Your task to perform on an android device: View the shopping cart on walmart.com. Add alienware area 51 to the cart on walmart.com, then select checkout. Image 0: 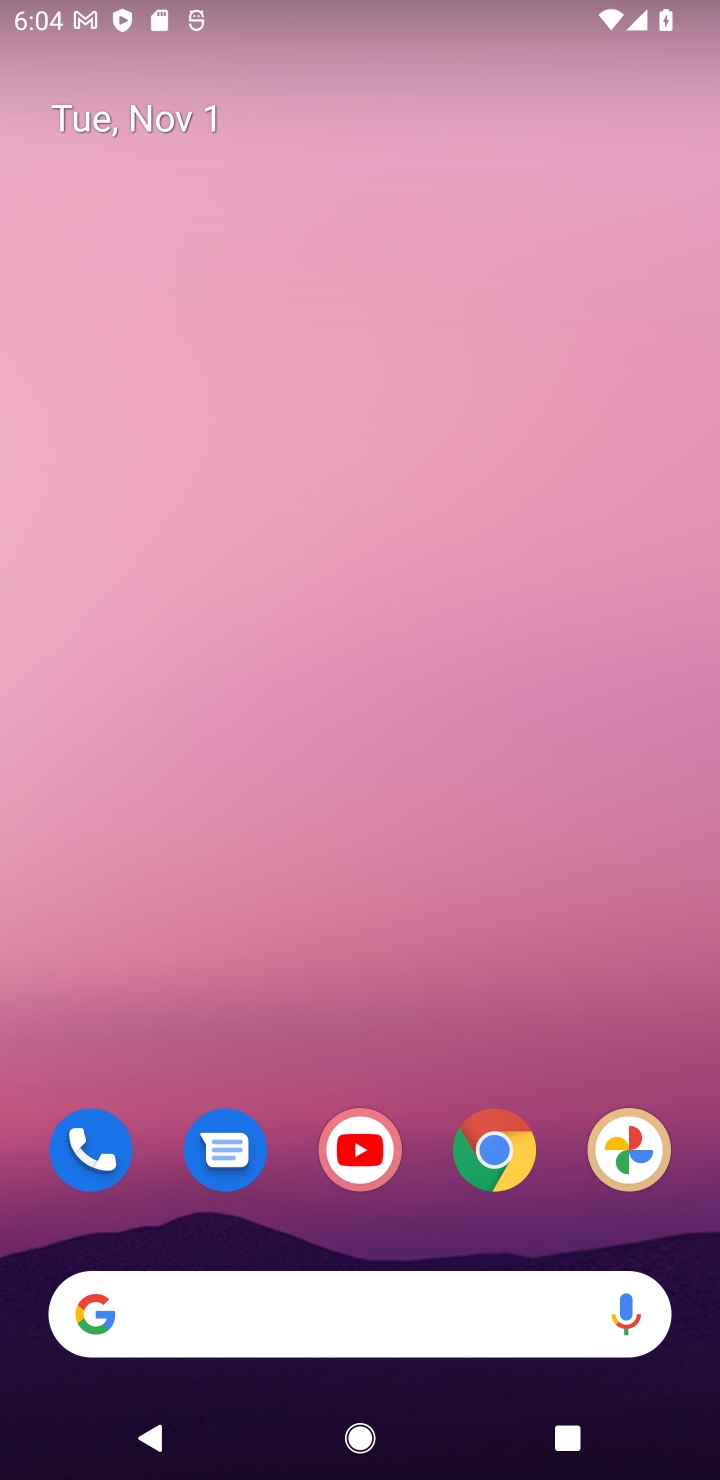
Step 0: click (493, 1176)
Your task to perform on an android device: View the shopping cart on walmart.com. Add alienware area 51 to the cart on walmart.com, then select checkout. Image 1: 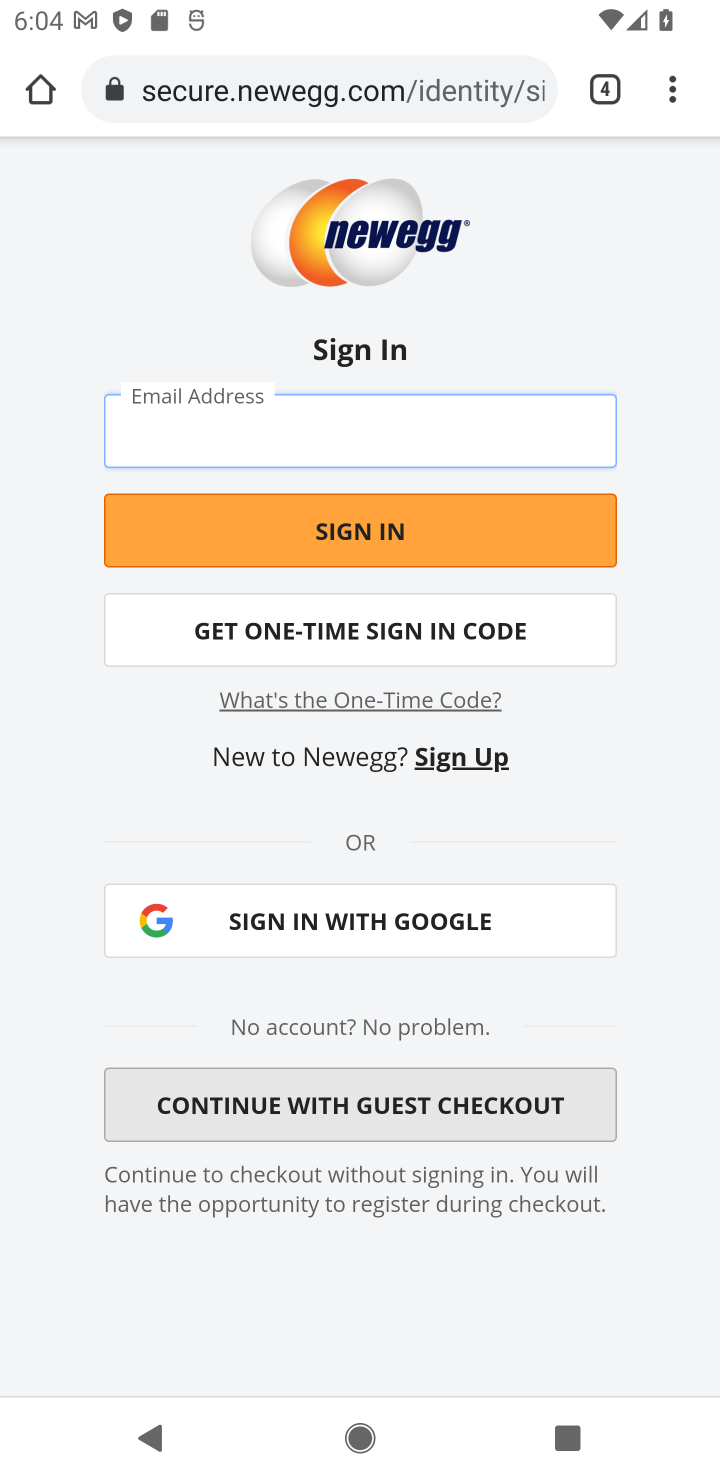
Step 1: click (609, 80)
Your task to perform on an android device: View the shopping cart on walmart.com. Add alienware area 51 to the cart on walmart.com, then select checkout. Image 2: 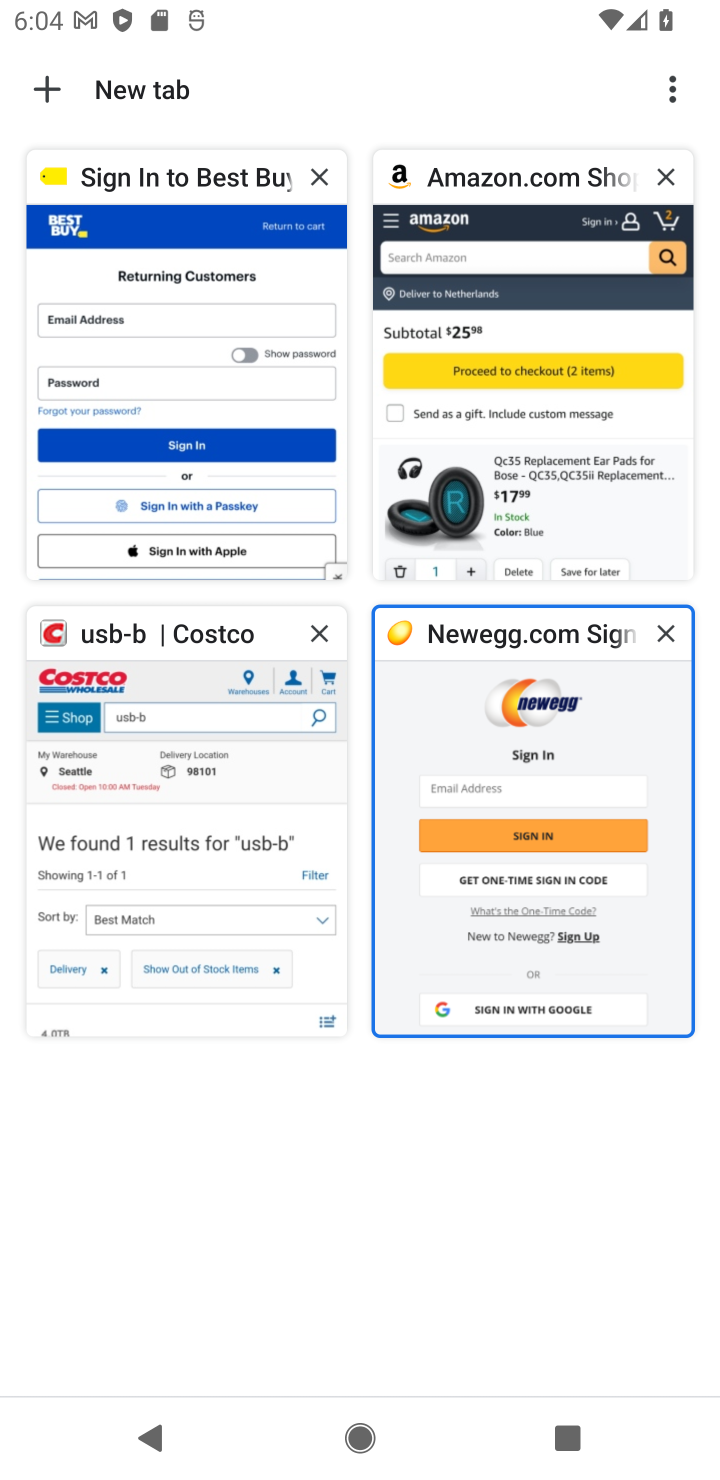
Step 2: click (48, 93)
Your task to perform on an android device: View the shopping cart on walmart.com. Add alienware area 51 to the cart on walmart.com, then select checkout. Image 3: 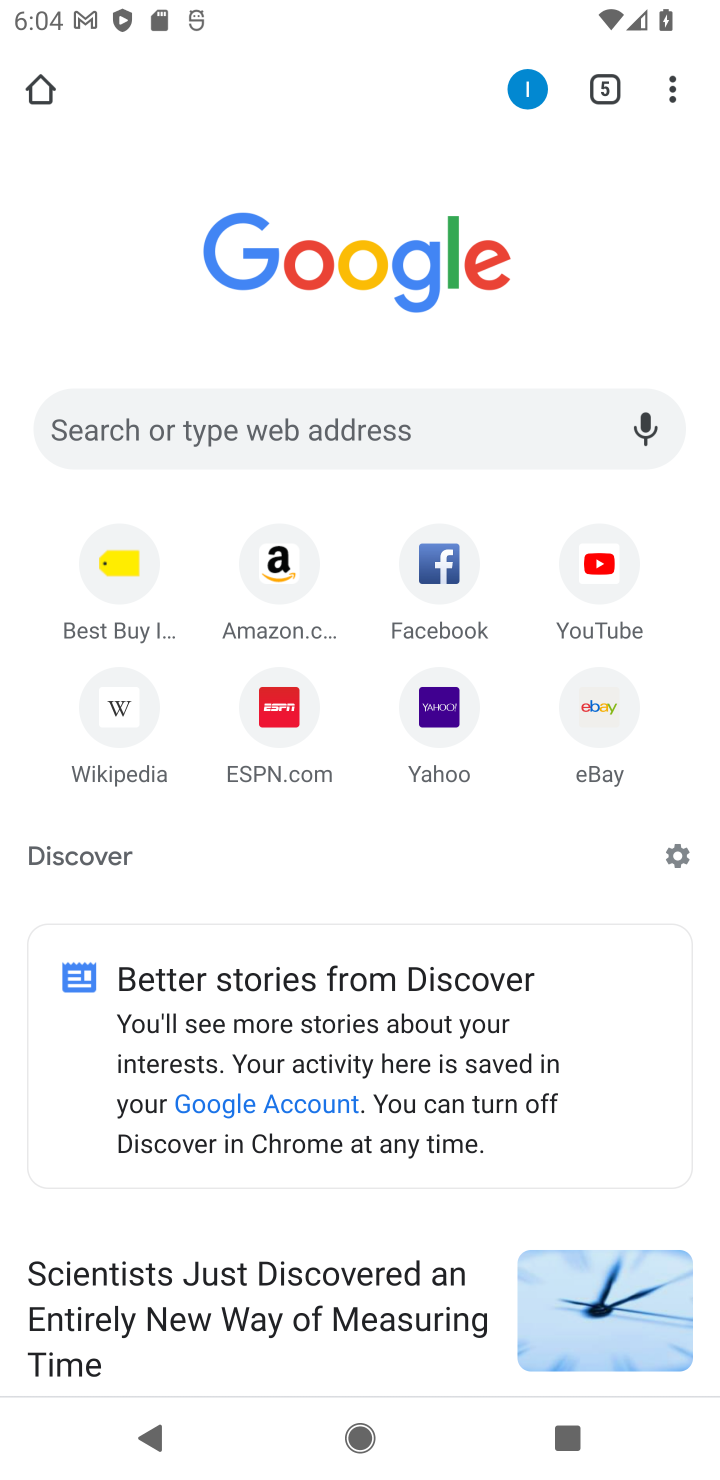
Step 3: click (368, 443)
Your task to perform on an android device: View the shopping cart on walmart.com. Add alienware area 51 to the cart on walmart.com, then select checkout. Image 4: 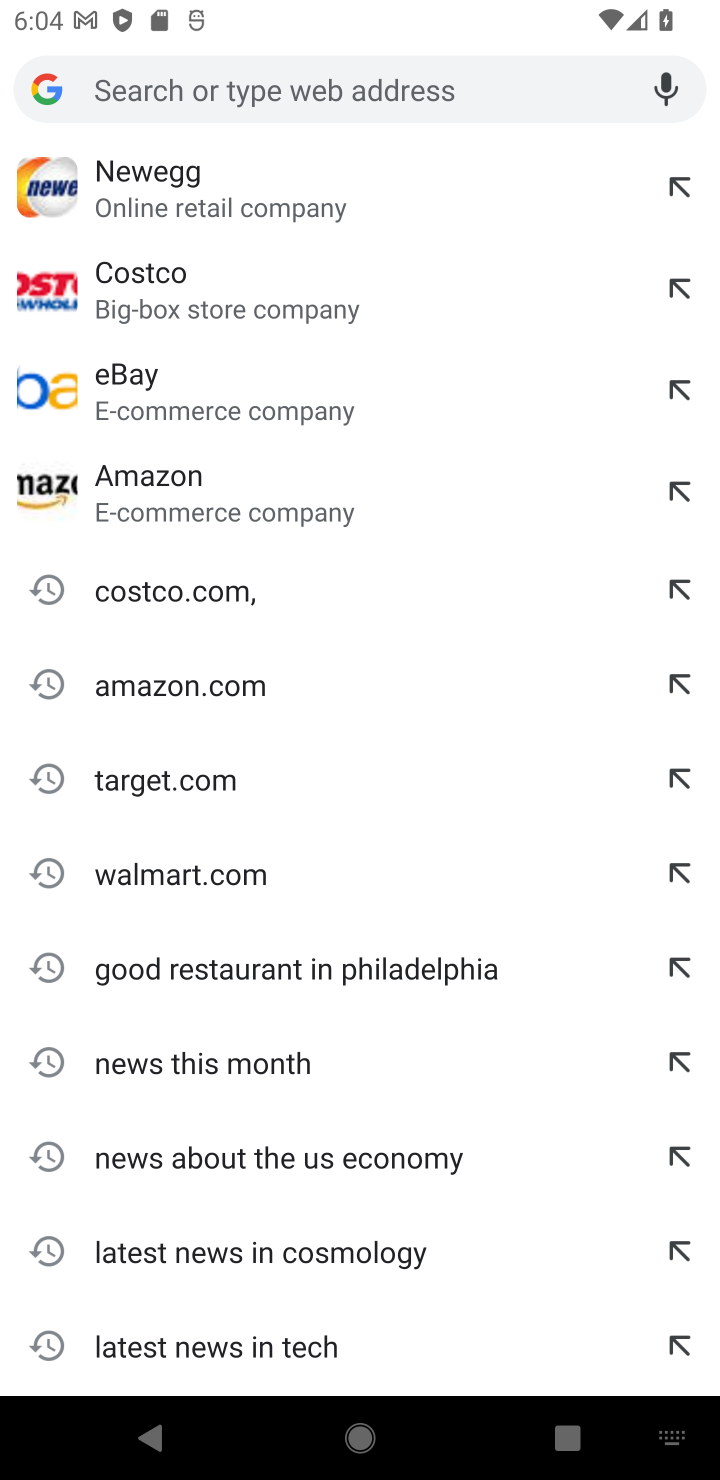
Step 4: type "walmart"
Your task to perform on an android device: View the shopping cart on walmart.com. Add alienware area 51 to the cart on walmart.com, then select checkout. Image 5: 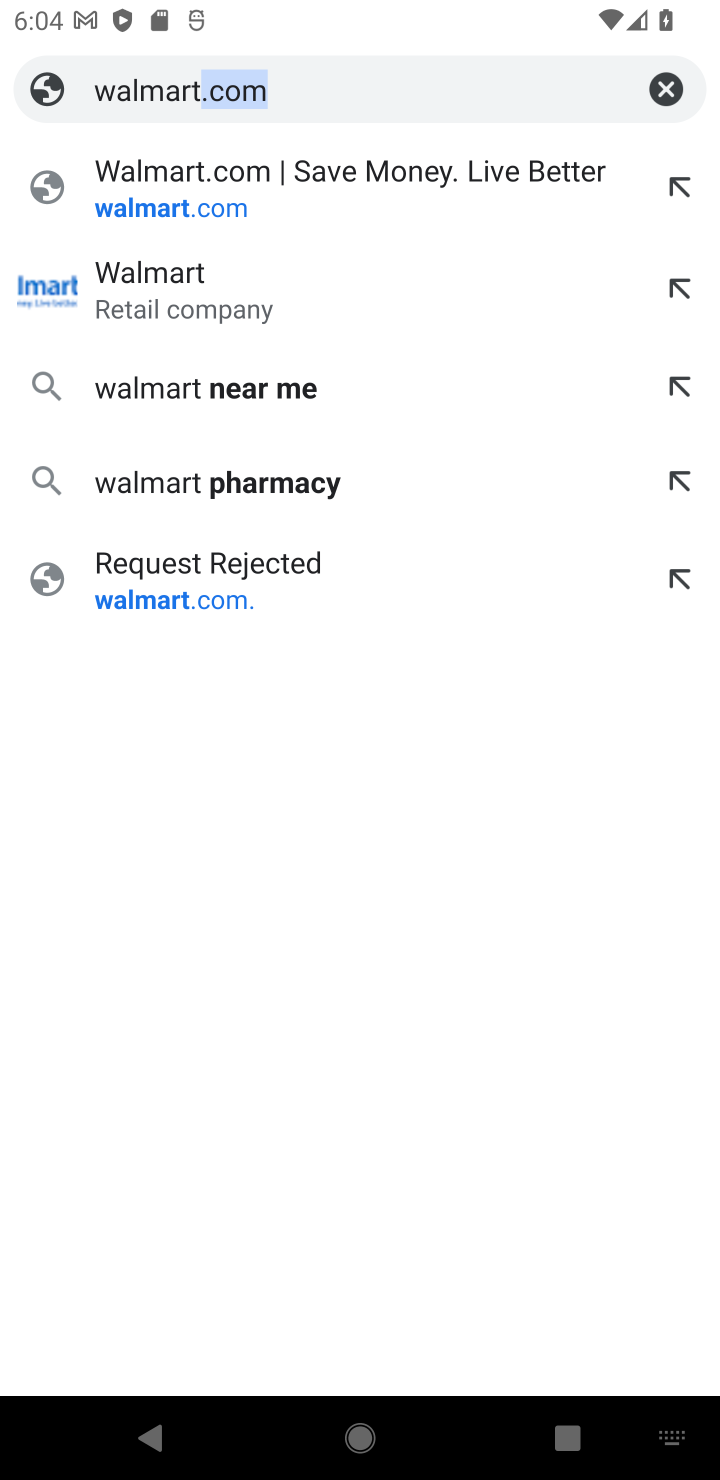
Step 5: click (344, 184)
Your task to perform on an android device: View the shopping cart on walmart.com. Add alienware area 51 to the cart on walmart.com, then select checkout. Image 6: 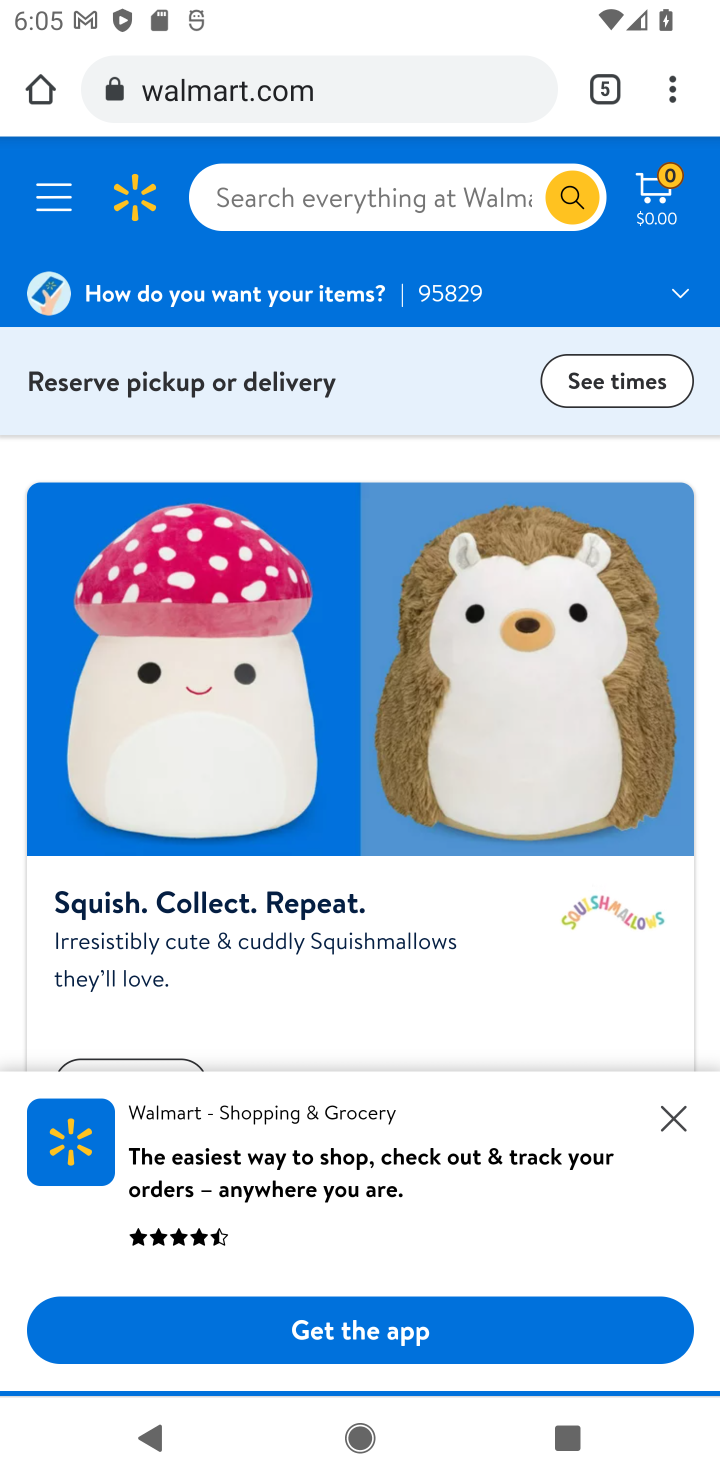
Step 6: click (379, 193)
Your task to perform on an android device: View the shopping cart on walmart.com. Add alienware area 51 to the cart on walmart.com, then select checkout. Image 7: 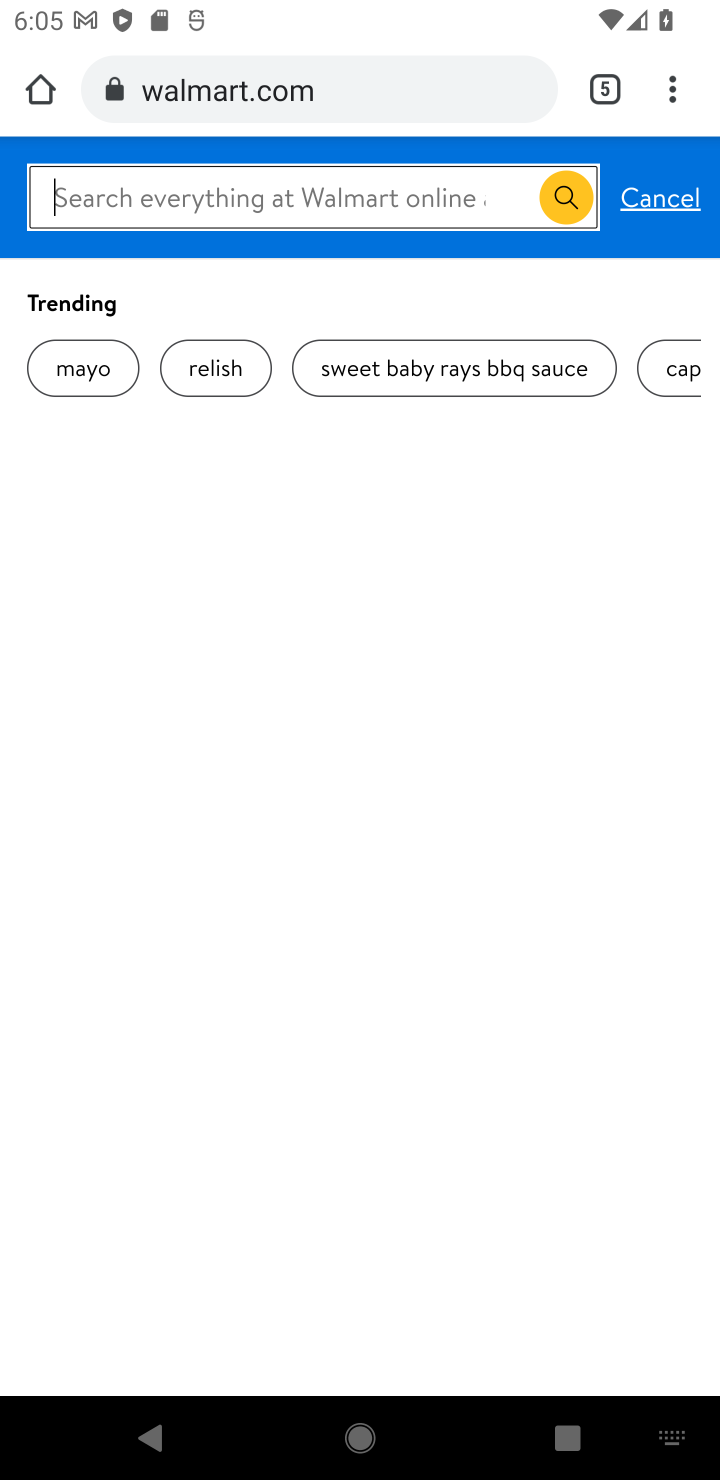
Step 7: type "alienware area 51"
Your task to perform on an android device: View the shopping cart on walmart.com. Add alienware area 51 to the cart on walmart.com, then select checkout. Image 8: 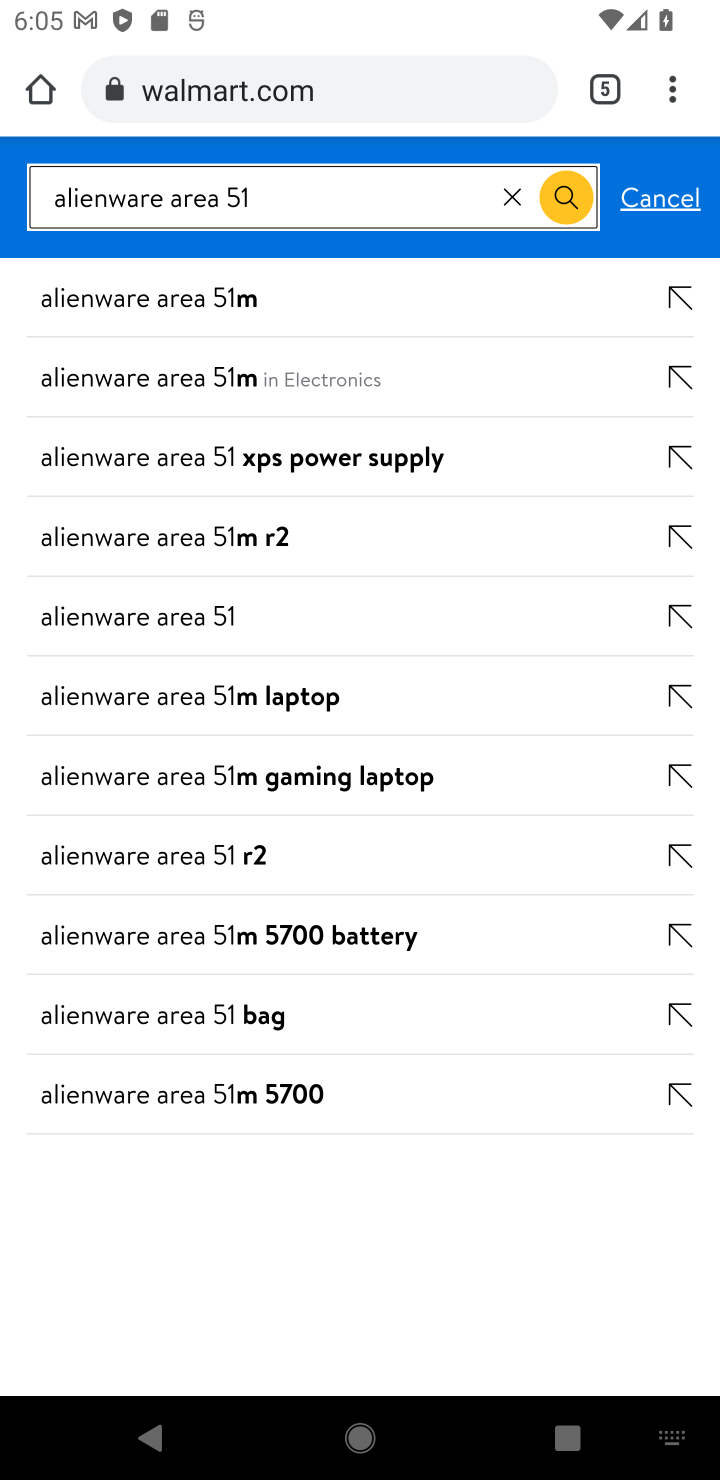
Step 8: click (213, 379)
Your task to perform on an android device: View the shopping cart on walmart.com. Add alienware area 51 to the cart on walmart.com, then select checkout. Image 9: 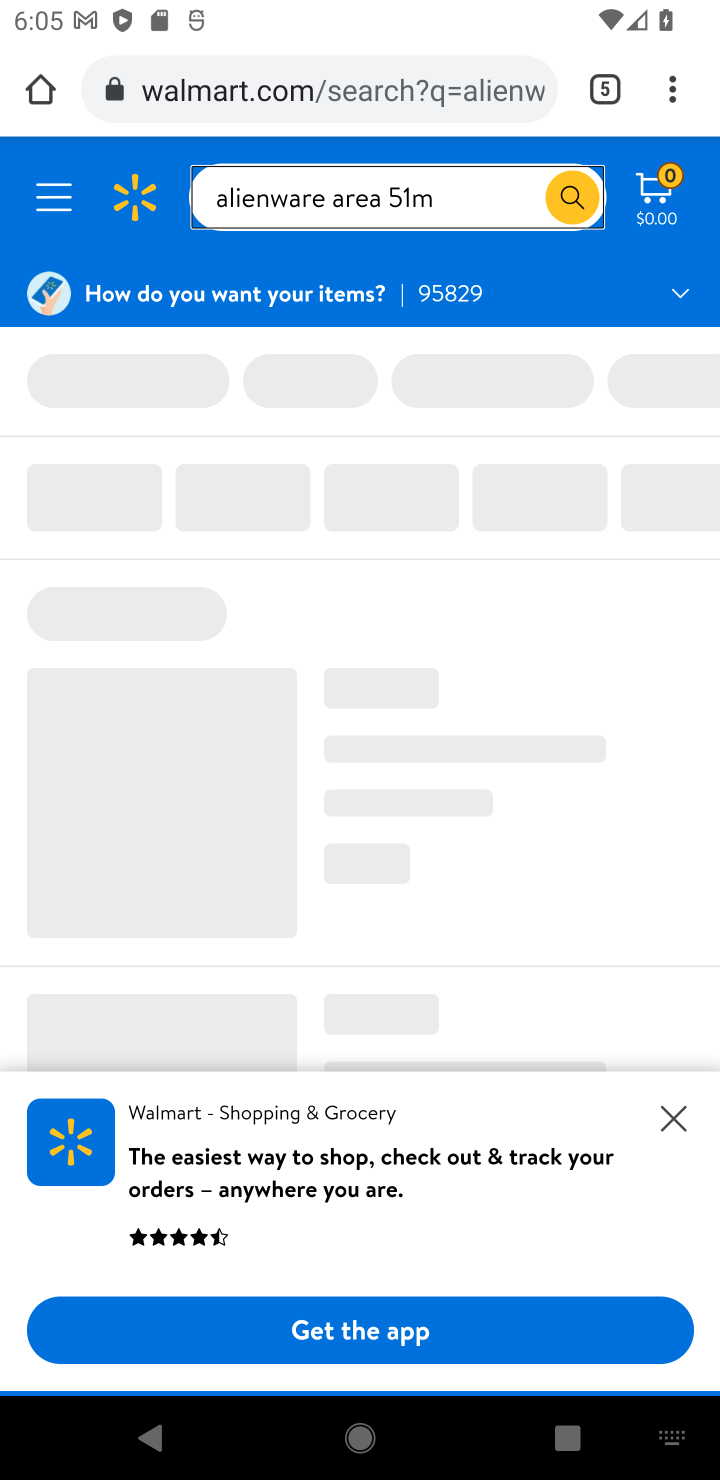
Step 9: click (668, 1112)
Your task to perform on an android device: View the shopping cart on walmart.com. Add alienware area 51 to the cart on walmart.com, then select checkout. Image 10: 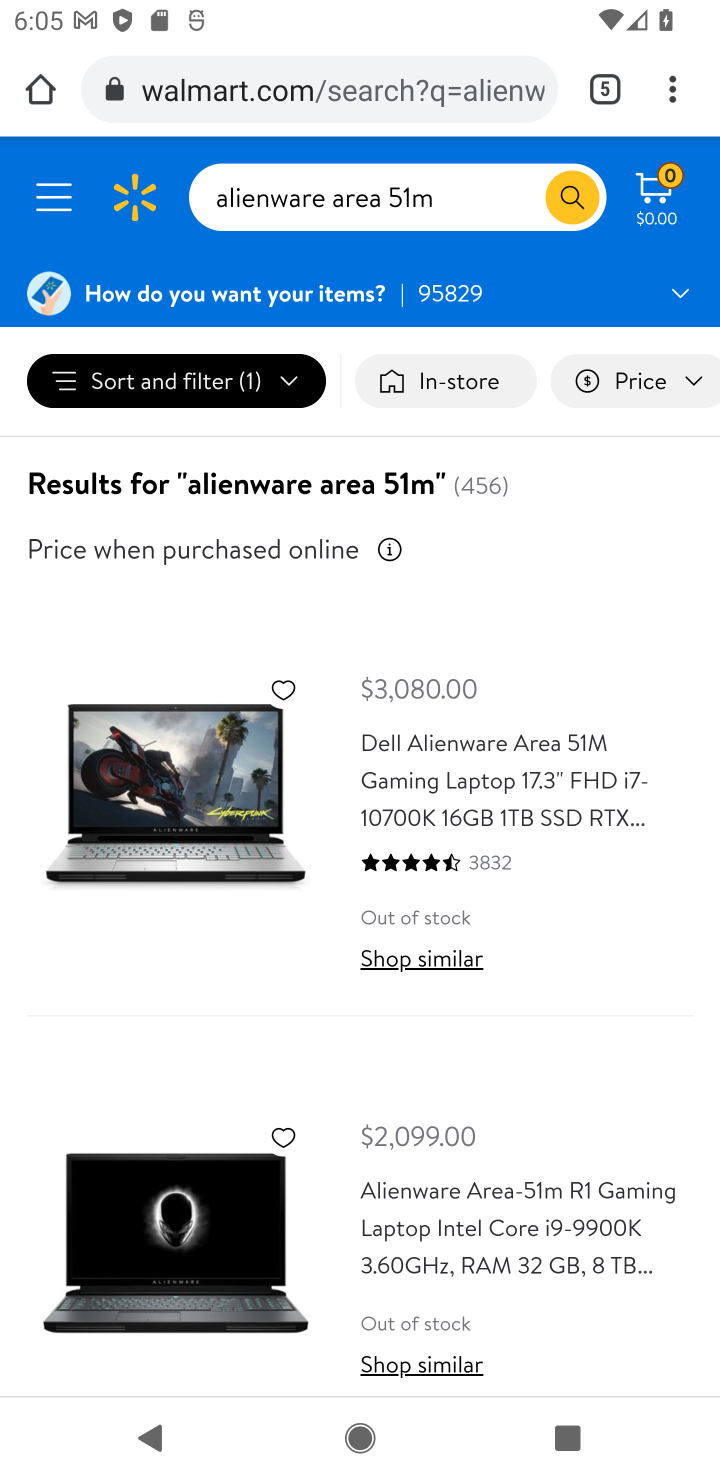
Step 10: click (565, 797)
Your task to perform on an android device: View the shopping cart on walmart.com. Add alienware area 51 to the cart on walmart.com, then select checkout. Image 11: 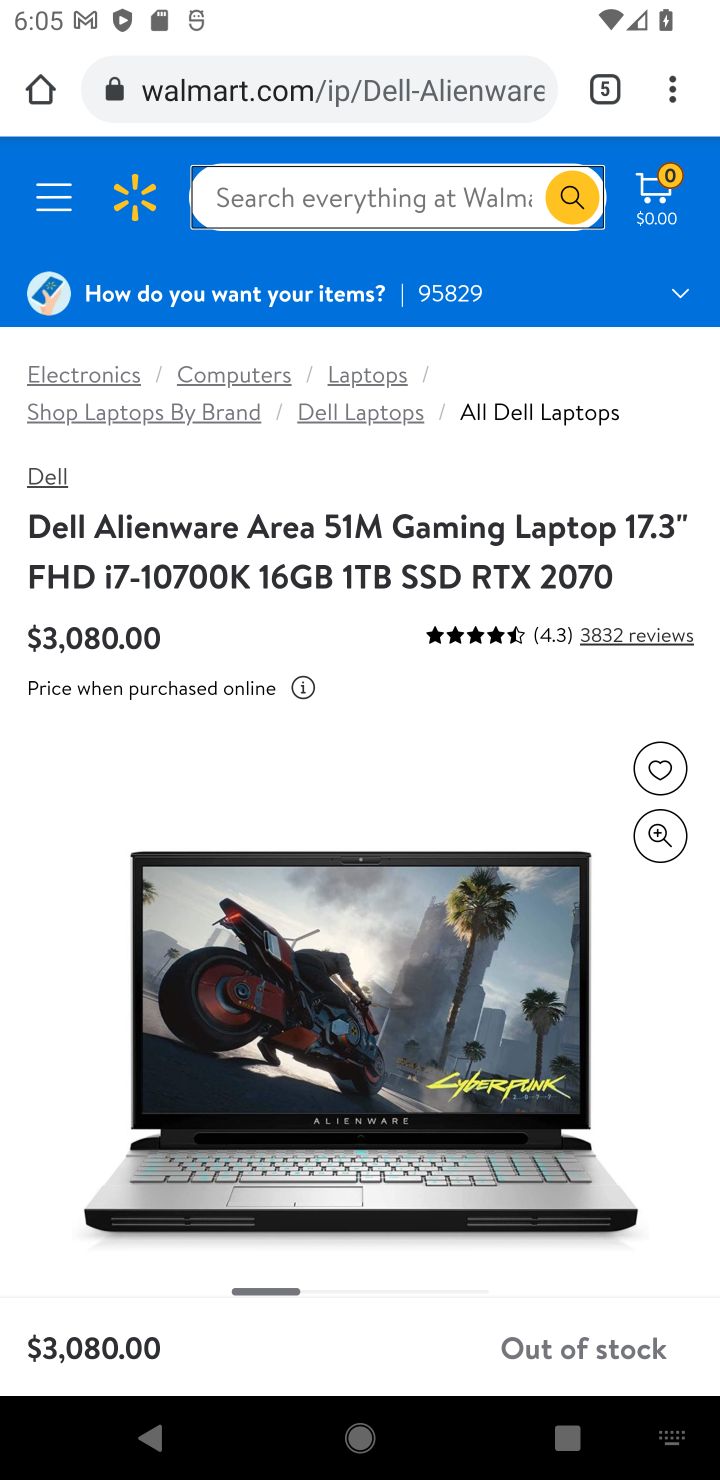
Step 11: drag from (344, 1188) to (639, 314)
Your task to perform on an android device: View the shopping cart on walmart.com. Add alienware area 51 to the cart on walmart.com, then select checkout. Image 12: 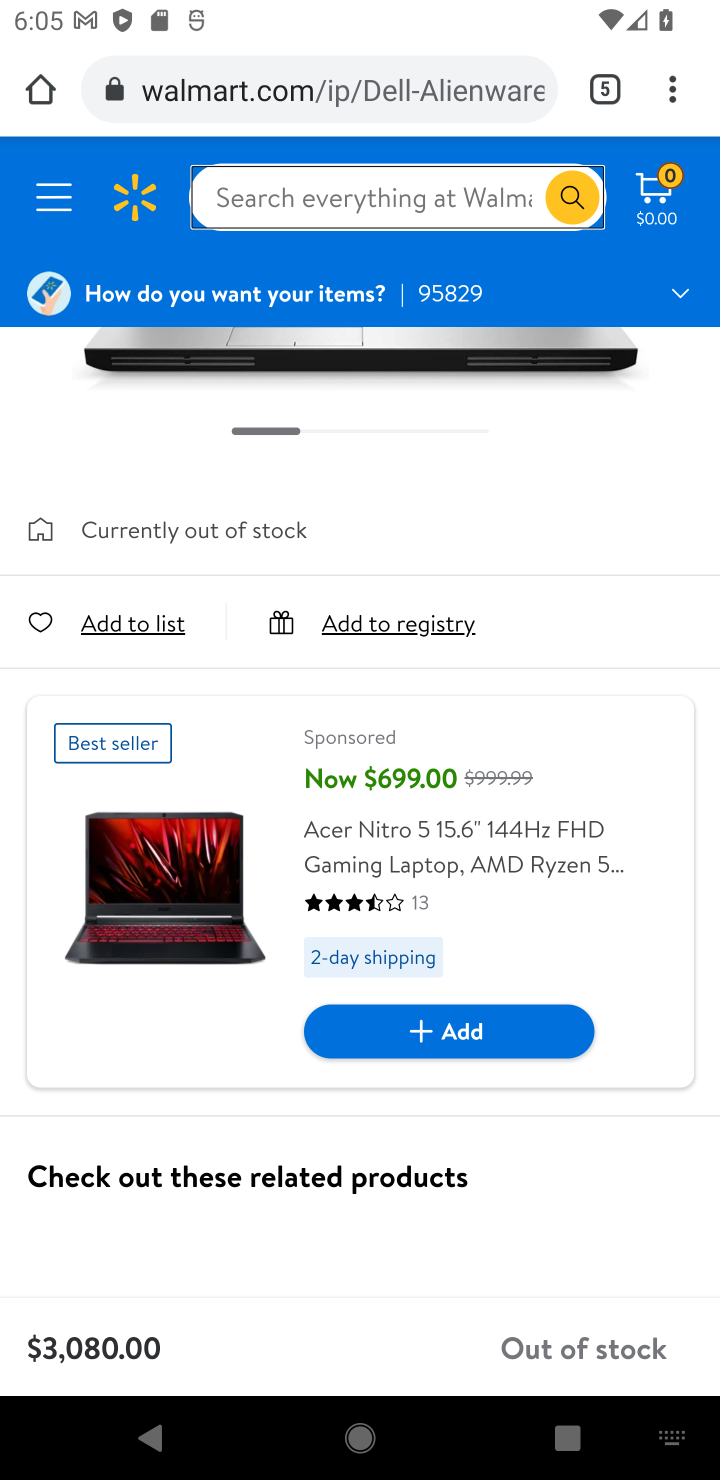
Step 12: press back button
Your task to perform on an android device: View the shopping cart on walmart.com. Add alienware area 51 to the cart on walmart.com, then select checkout. Image 13: 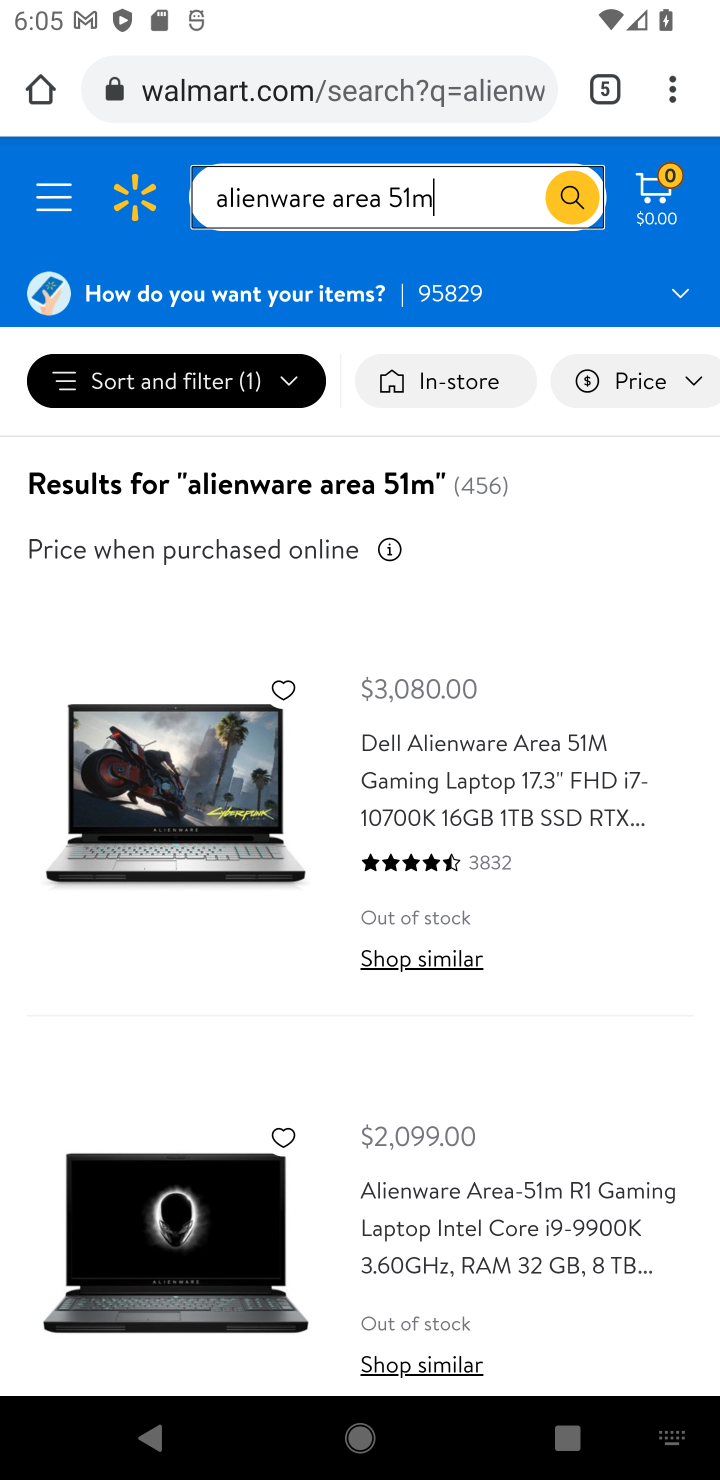
Step 13: drag from (473, 1262) to (595, 627)
Your task to perform on an android device: View the shopping cart on walmart.com. Add alienware area 51 to the cart on walmart.com, then select checkout. Image 14: 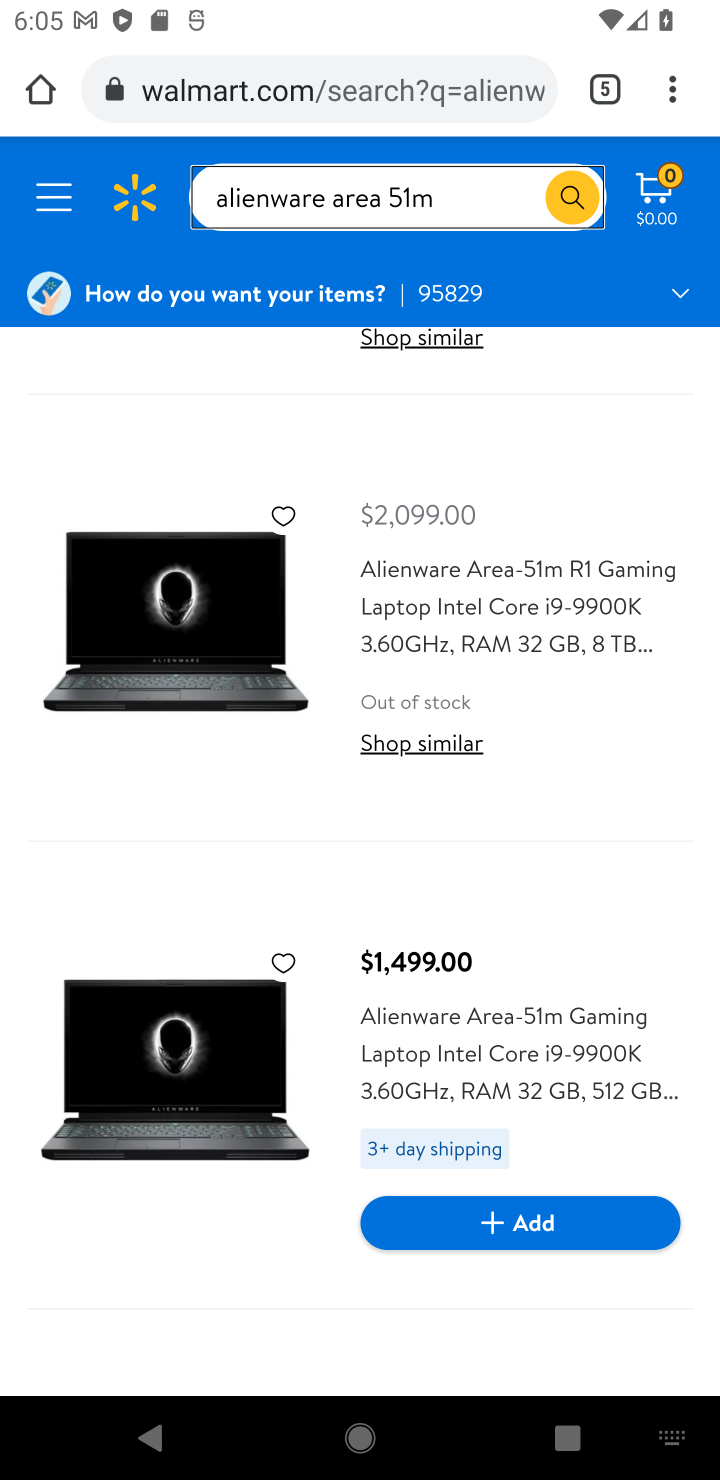
Step 14: click (541, 1231)
Your task to perform on an android device: View the shopping cart on walmart.com. Add alienware area 51 to the cart on walmart.com, then select checkout. Image 15: 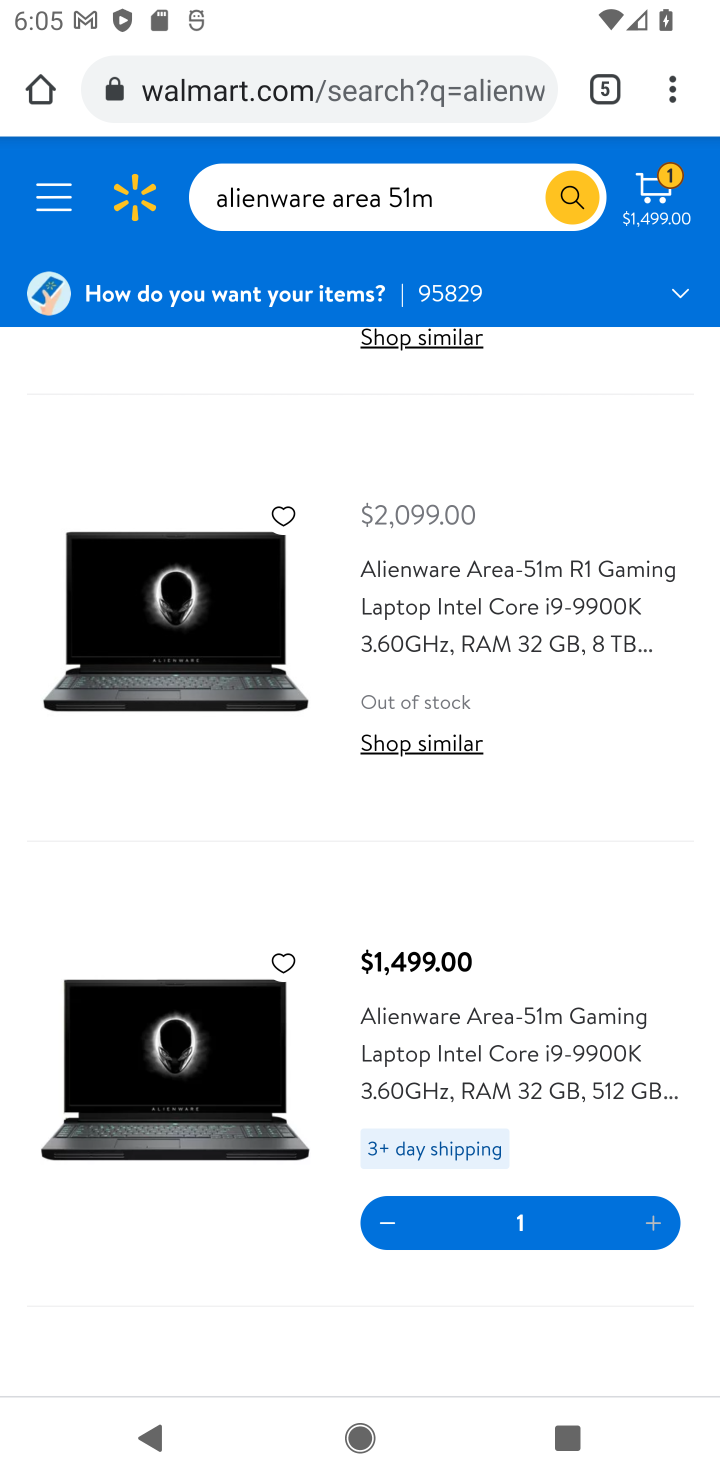
Step 15: task complete